Your task to perform on an android device: check storage Image 0: 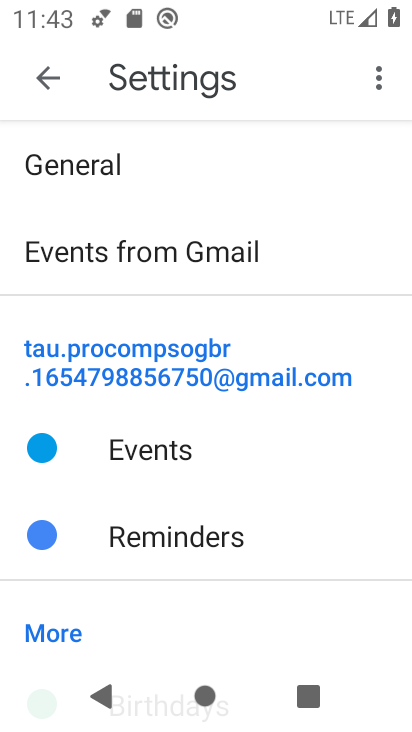
Step 0: press home button
Your task to perform on an android device: check storage Image 1: 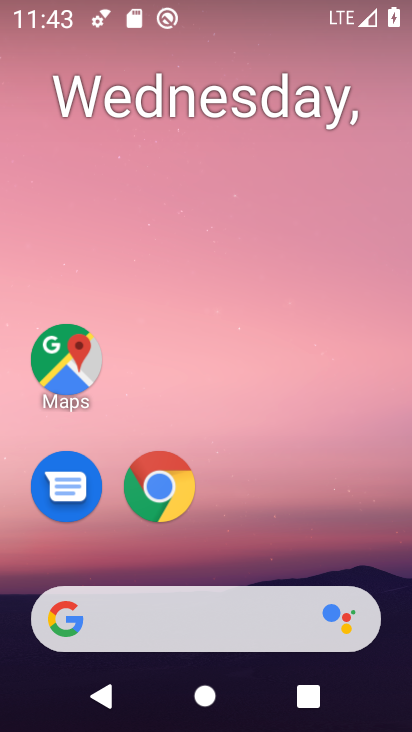
Step 1: drag from (390, 541) to (382, 106)
Your task to perform on an android device: check storage Image 2: 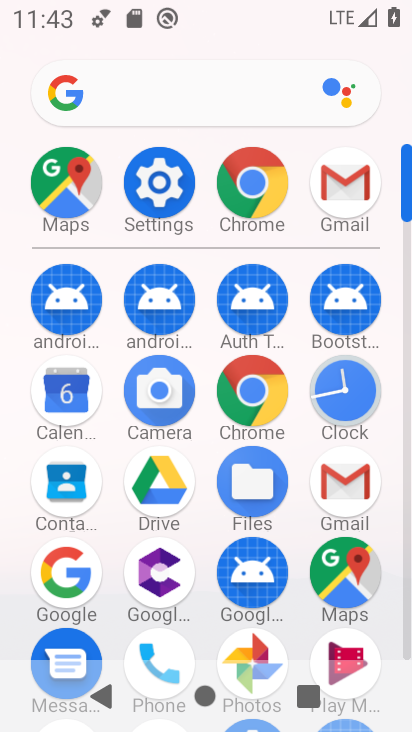
Step 2: click (173, 195)
Your task to perform on an android device: check storage Image 3: 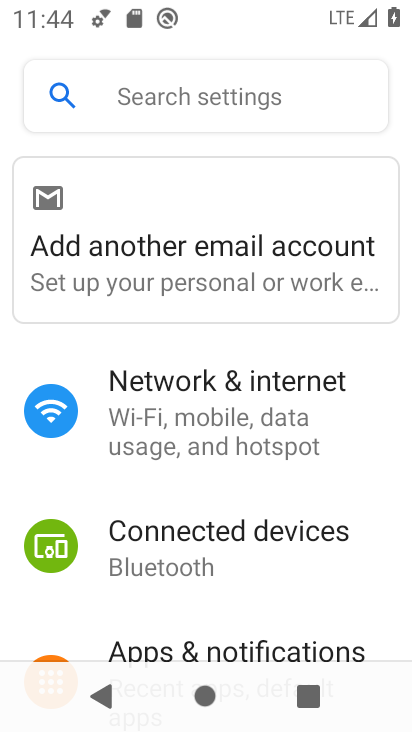
Step 3: drag from (382, 516) to (368, 411)
Your task to perform on an android device: check storage Image 4: 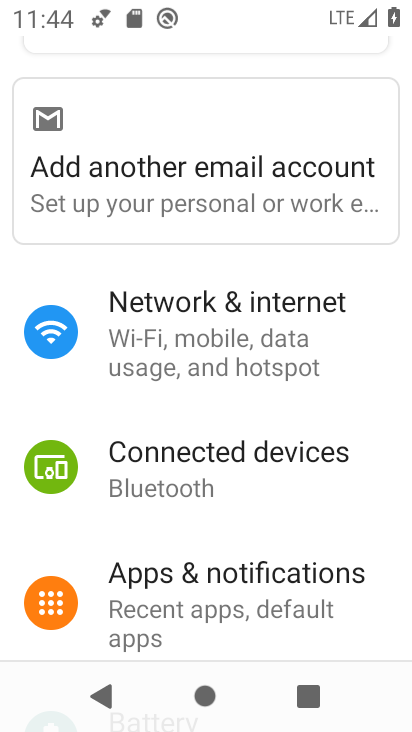
Step 4: drag from (379, 534) to (388, 443)
Your task to perform on an android device: check storage Image 5: 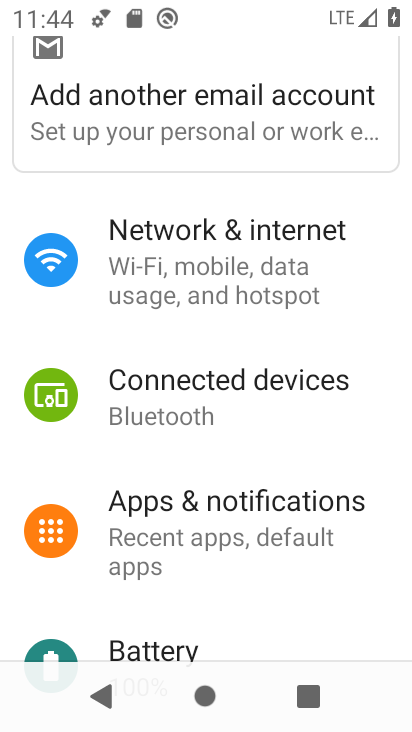
Step 5: drag from (381, 514) to (364, 429)
Your task to perform on an android device: check storage Image 6: 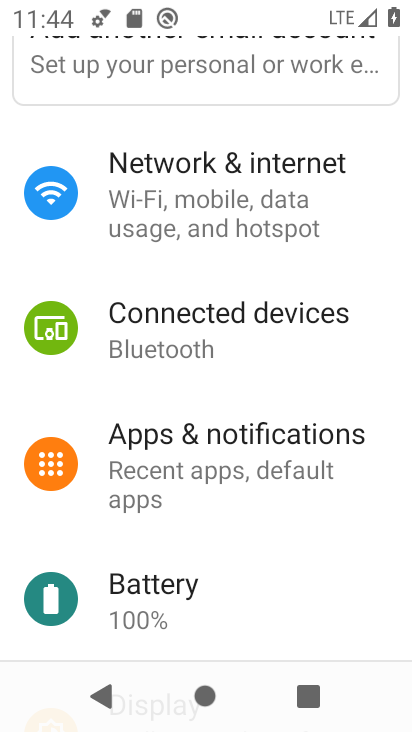
Step 6: drag from (359, 511) to (359, 445)
Your task to perform on an android device: check storage Image 7: 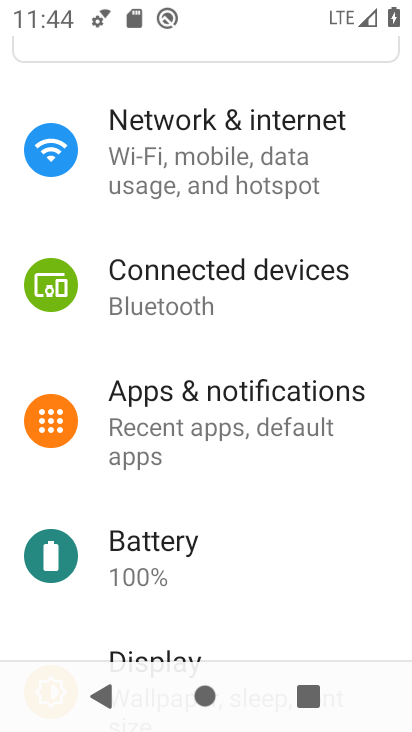
Step 7: drag from (370, 550) to (360, 492)
Your task to perform on an android device: check storage Image 8: 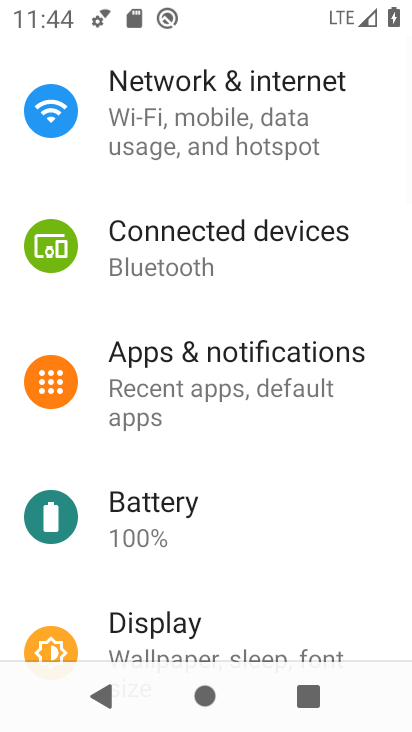
Step 8: drag from (351, 561) to (338, 508)
Your task to perform on an android device: check storage Image 9: 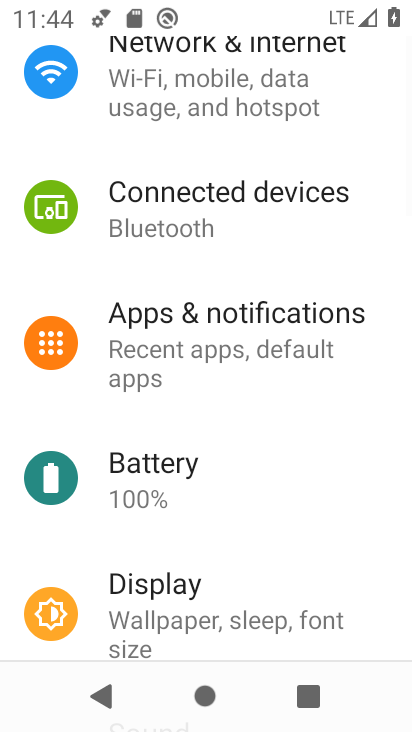
Step 9: drag from (340, 570) to (342, 519)
Your task to perform on an android device: check storage Image 10: 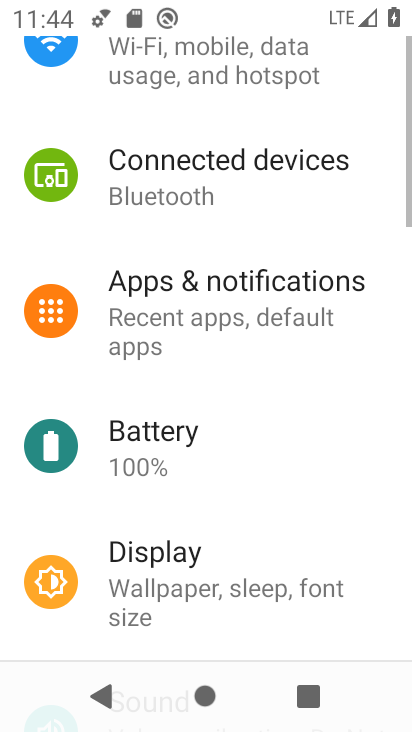
Step 10: drag from (347, 561) to (364, 399)
Your task to perform on an android device: check storage Image 11: 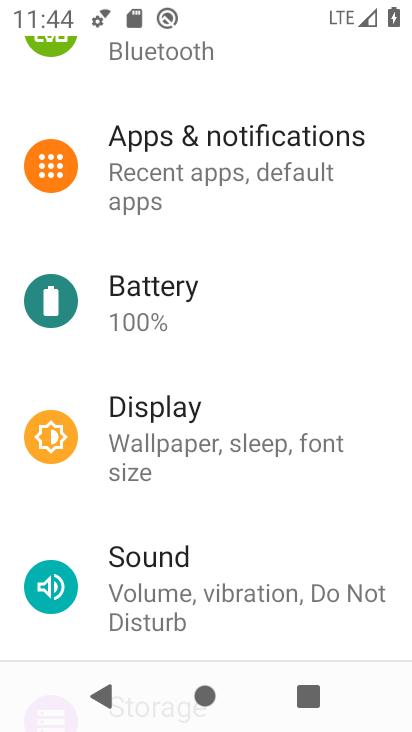
Step 11: drag from (341, 501) to (339, 382)
Your task to perform on an android device: check storage Image 12: 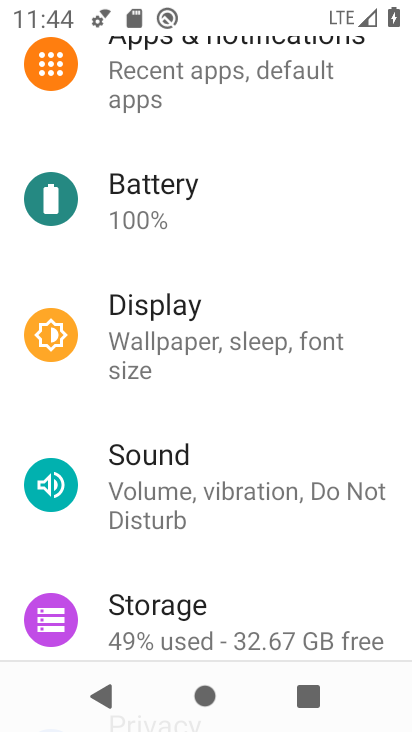
Step 12: drag from (347, 516) to (343, 372)
Your task to perform on an android device: check storage Image 13: 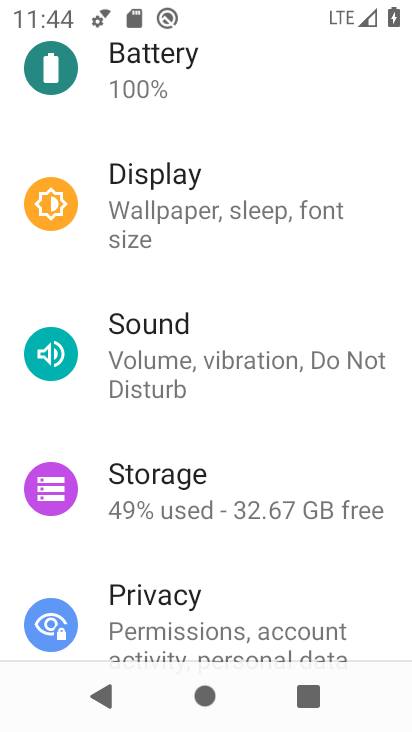
Step 13: drag from (362, 535) to (354, 393)
Your task to perform on an android device: check storage Image 14: 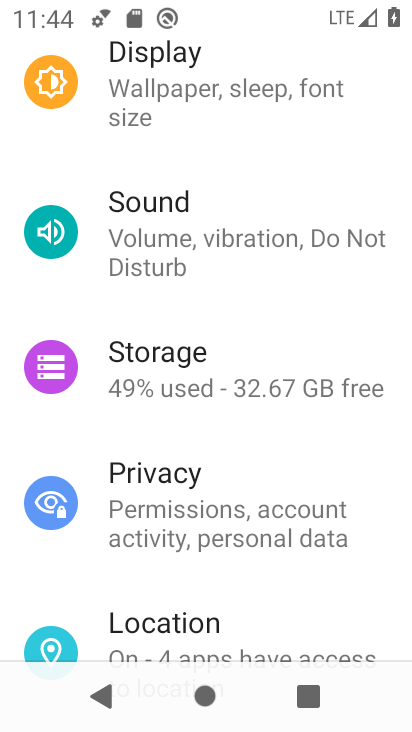
Step 14: drag from (366, 531) to (371, 446)
Your task to perform on an android device: check storage Image 15: 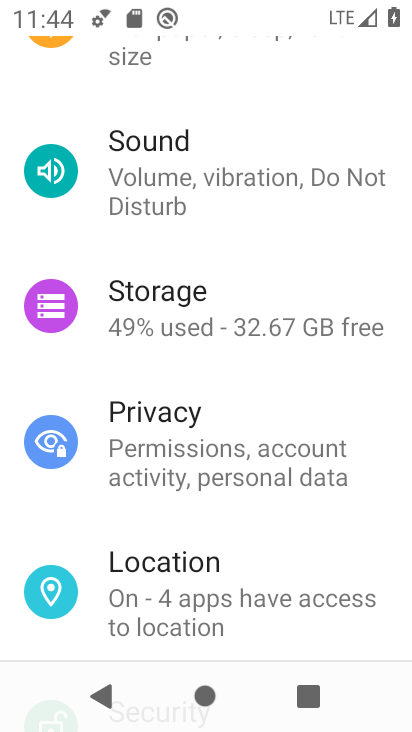
Step 15: click (233, 321)
Your task to perform on an android device: check storage Image 16: 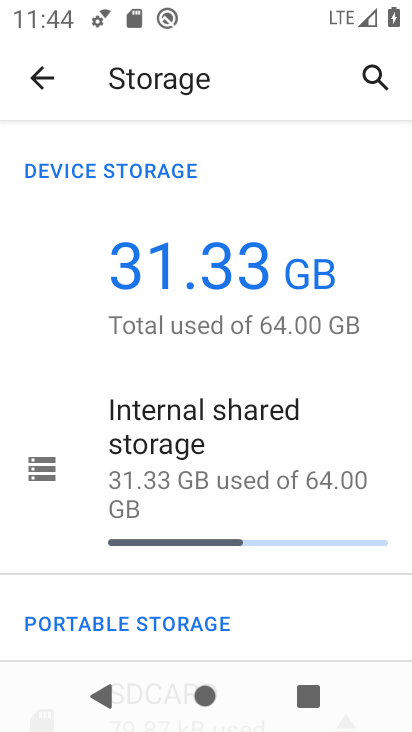
Step 16: task complete